Your task to perform on an android device: turn off priority inbox in the gmail app Image 0: 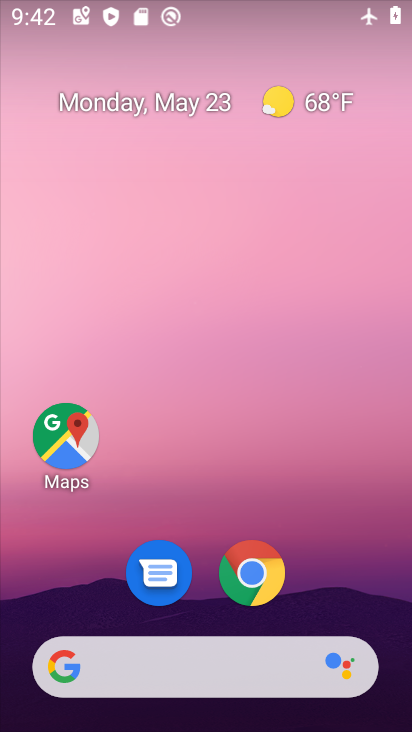
Step 0: drag from (212, 682) to (283, 7)
Your task to perform on an android device: turn off priority inbox in the gmail app Image 1: 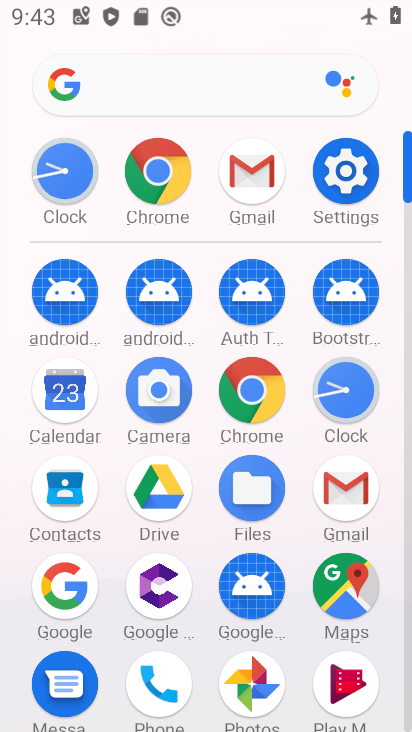
Step 1: click (353, 483)
Your task to perform on an android device: turn off priority inbox in the gmail app Image 2: 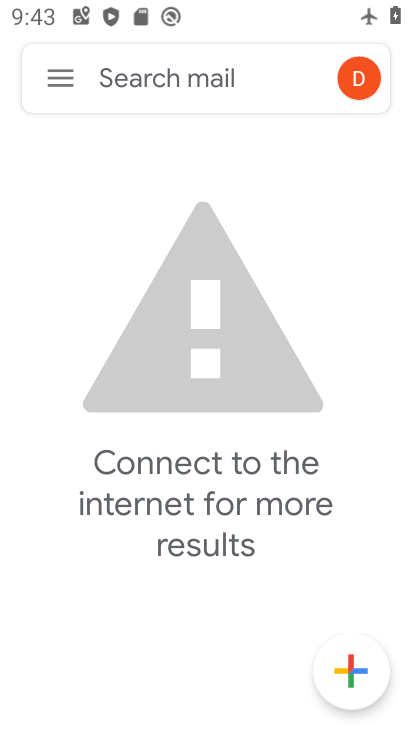
Step 2: click (61, 78)
Your task to perform on an android device: turn off priority inbox in the gmail app Image 3: 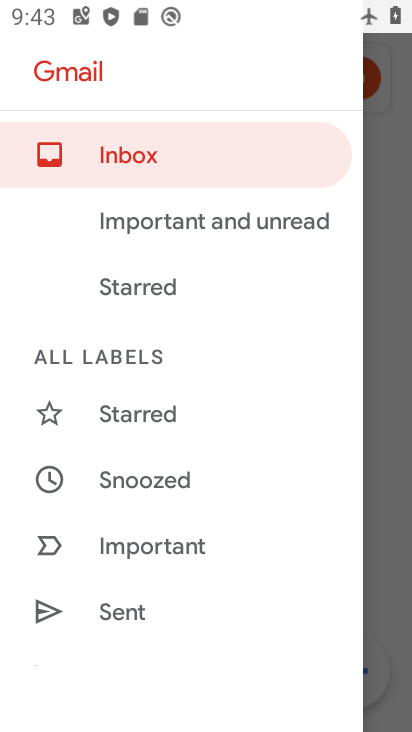
Step 3: drag from (183, 427) to (198, 314)
Your task to perform on an android device: turn off priority inbox in the gmail app Image 4: 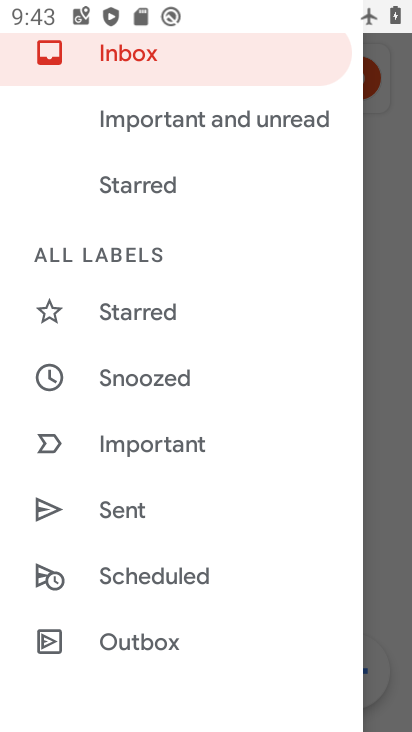
Step 4: drag from (205, 406) to (271, 91)
Your task to perform on an android device: turn off priority inbox in the gmail app Image 5: 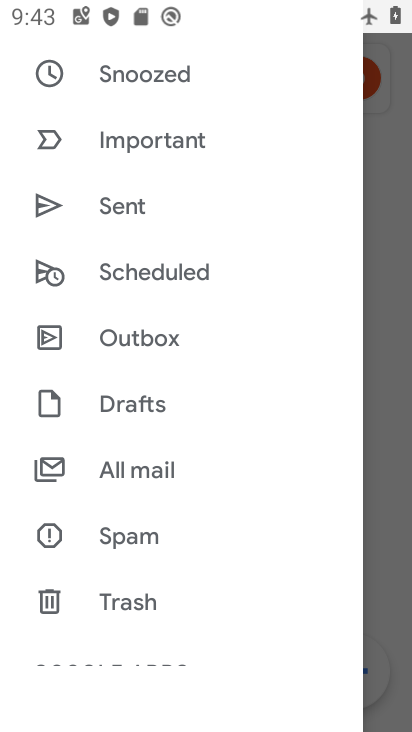
Step 5: drag from (254, 435) to (257, 289)
Your task to perform on an android device: turn off priority inbox in the gmail app Image 6: 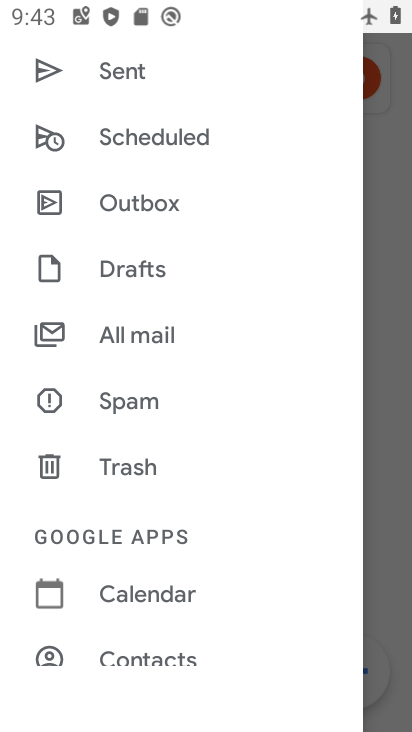
Step 6: drag from (238, 522) to (265, 196)
Your task to perform on an android device: turn off priority inbox in the gmail app Image 7: 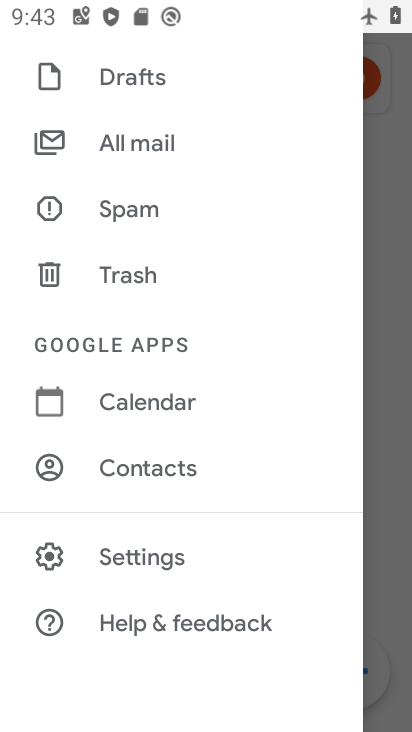
Step 7: click (159, 557)
Your task to perform on an android device: turn off priority inbox in the gmail app Image 8: 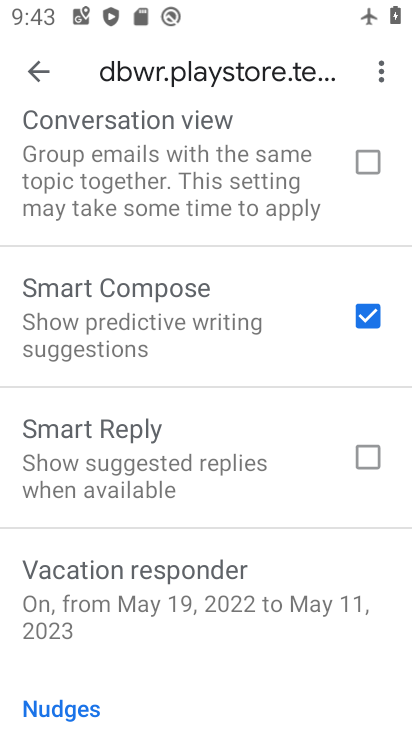
Step 8: drag from (217, 298) to (89, 720)
Your task to perform on an android device: turn off priority inbox in the gmail app Image 9: 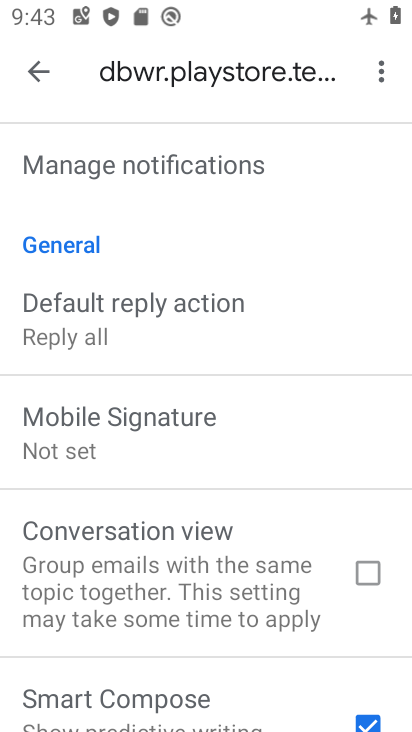
Step 9: drag from (167, 251) to (105, 575)
Your task to perform on an android device: turn off priority inbox in the gmail app Image 10: 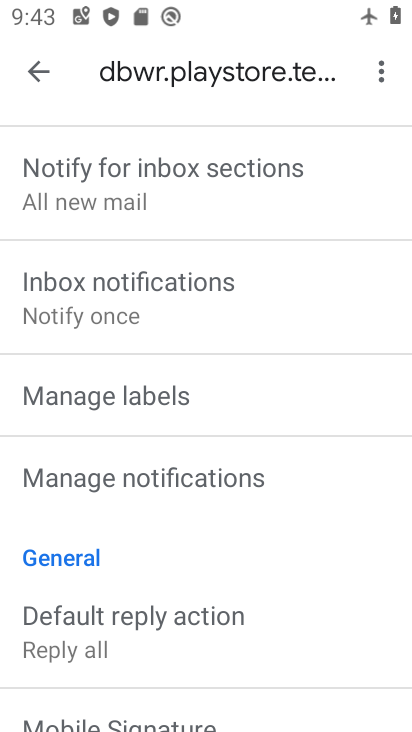
Step 10: drag from (161, 272) to (116, 552)
Your task to perform on an android device: turn off priority inbox in the gmail app Image 11: 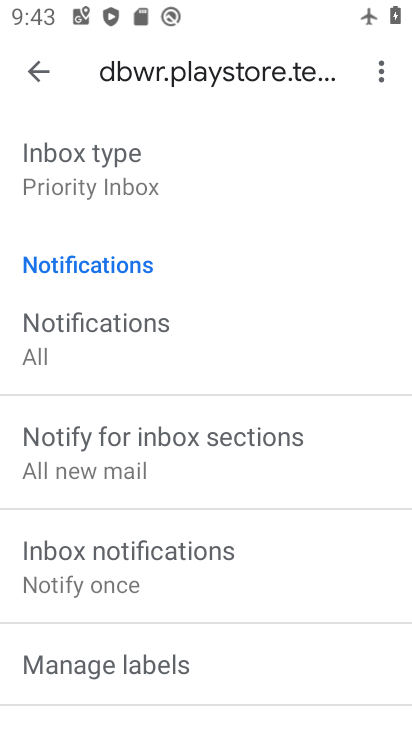
Step 11: click (167, 181)
Your task to perform on an android device: turn off priority inbox in the gmail app Image 12: 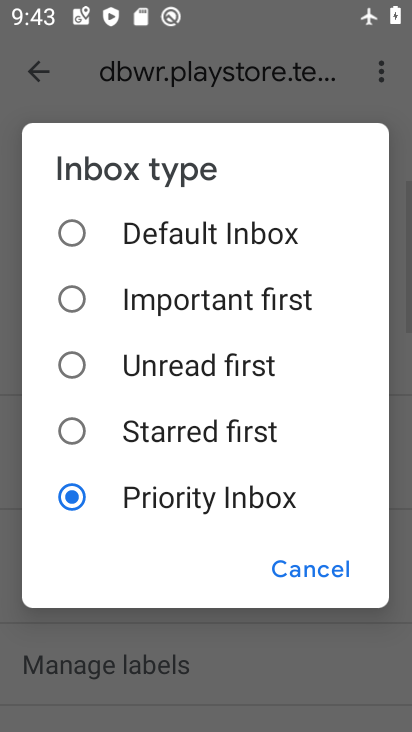
Step 12: click (186, 237)
Your task to perform on an android device: turn off priority inbox in the gmail app Image 13: 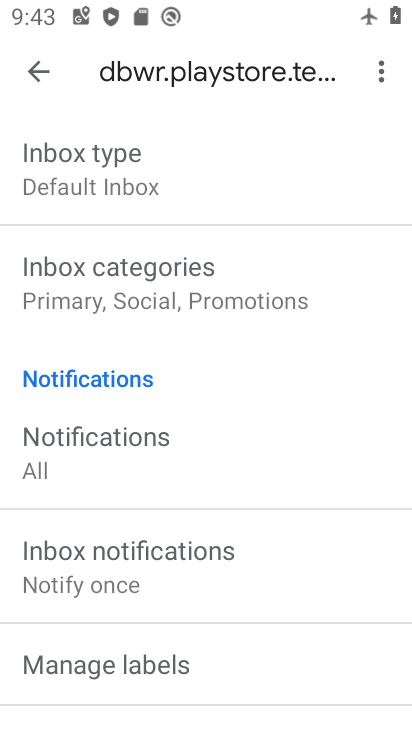
Step 13: task complete